Your task to perform on an android device: change text size in settings app Image 0: 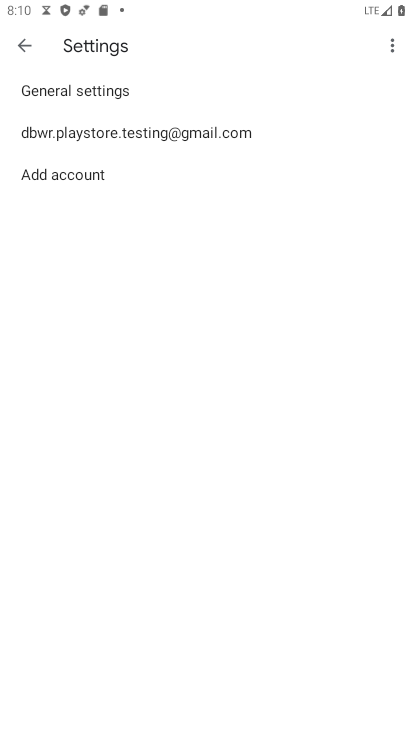
Step 0: press home button
Your task to perform on an android device: change text size in settings app Image 1: 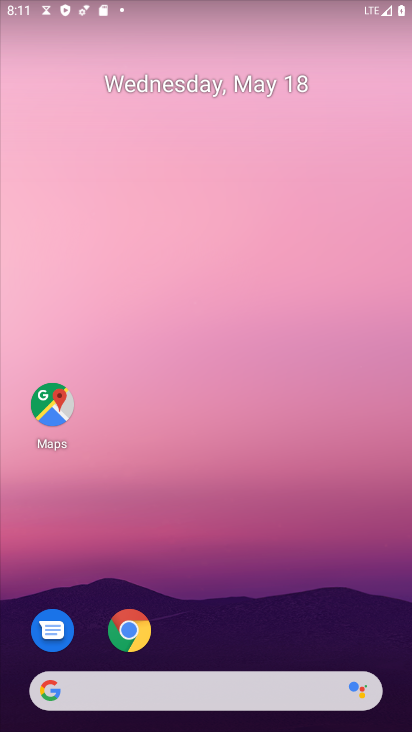
Step 1: drag from (289, 540) to (405, 591)
Your task to perform on an android device: change text size in settings app Image 2: 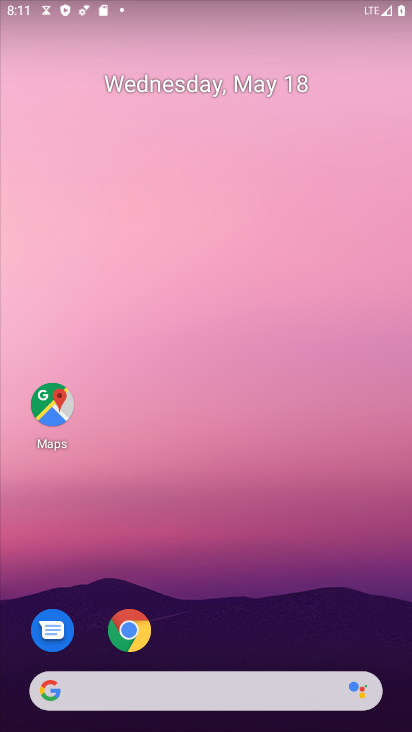
Step 2: drag from (358, 522) to (329, 35)
Your task to perform on an android device: change text size in settings app Image 3: 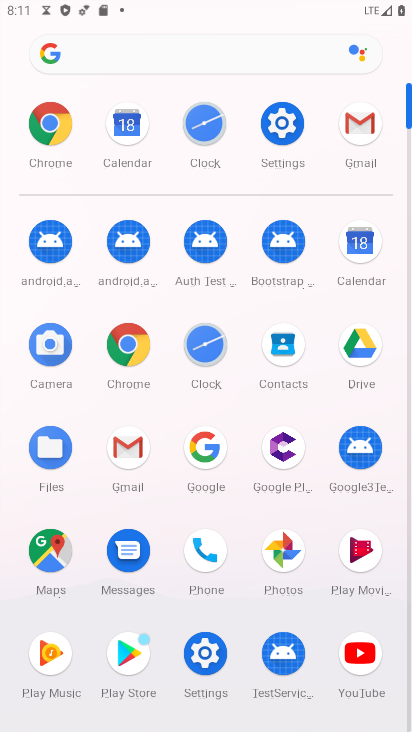
Step 3: click (280, 133)
Your task to perform on an android device: change text size in settings app Image 4: 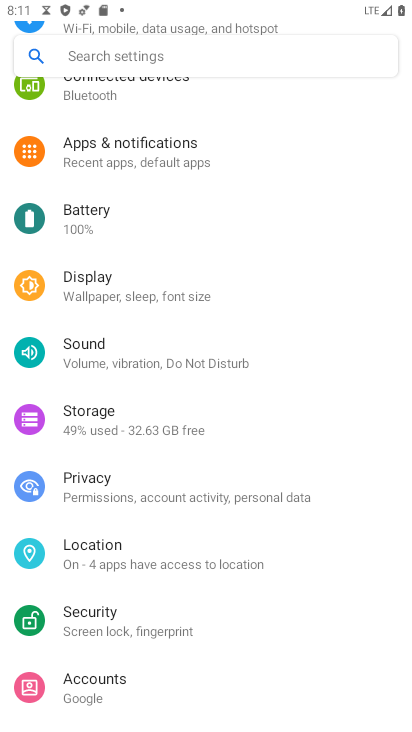
Step 4: click (169, 293)
Your task to perform on an android device: change text size in settings app Image 5: 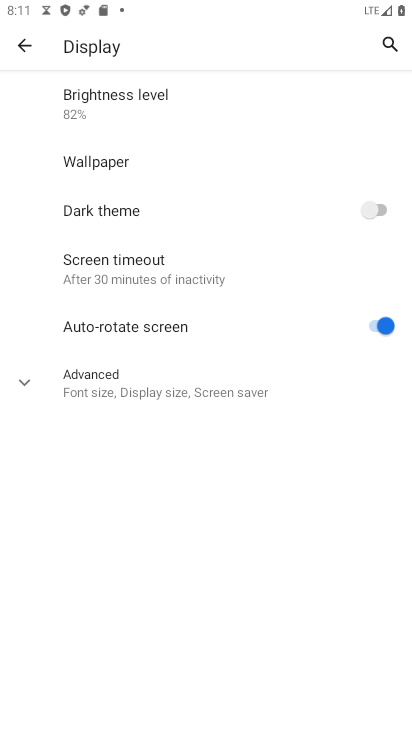
Step 5: click (174, 380)
Your task to perform on an android device: change text size in settings app Image 6: 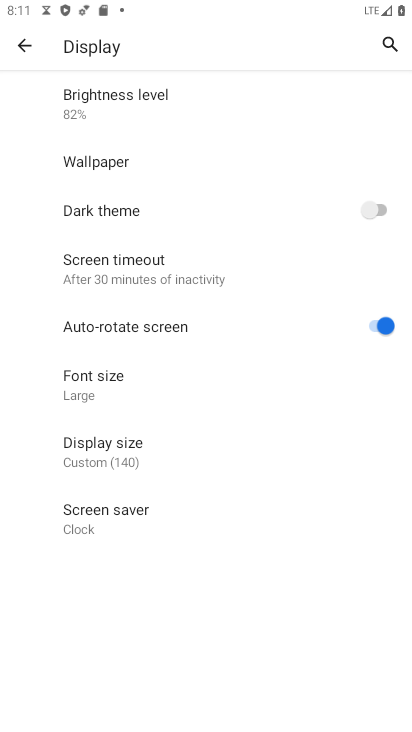
Step 6: click (81, 390)
Your task to perform on an android device: change text size in settings app Image 7: 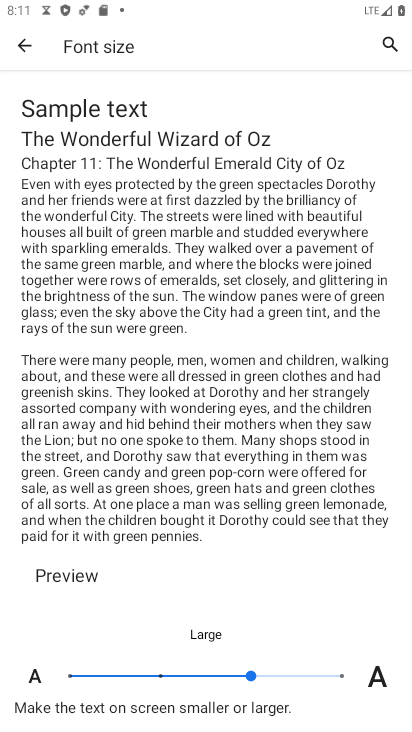
Step 7: click (193, 670)
Your task to perform on an android device: change text size in settings app Image 8: 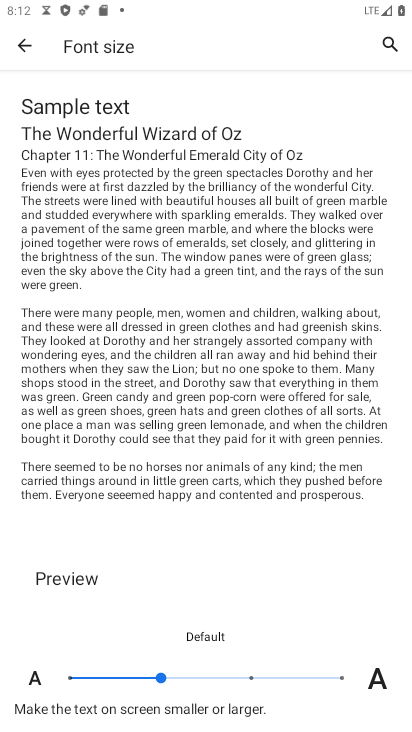
Step 8: task complete